Your task to perform on an android device: show emergency info Image 0: 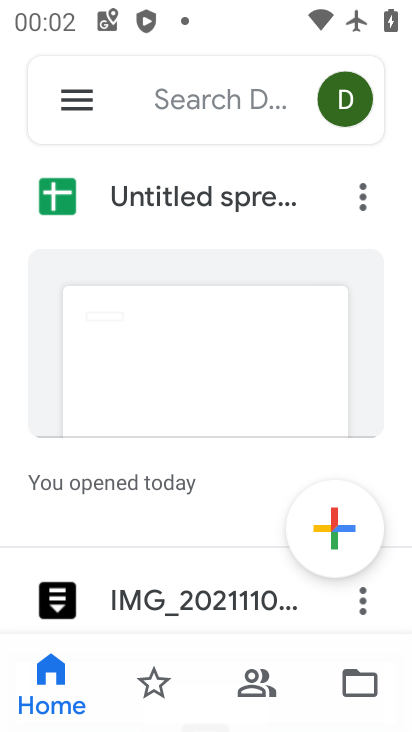
Step 0: press home button
Your task to perform on an android device: show emergency info Image 1: 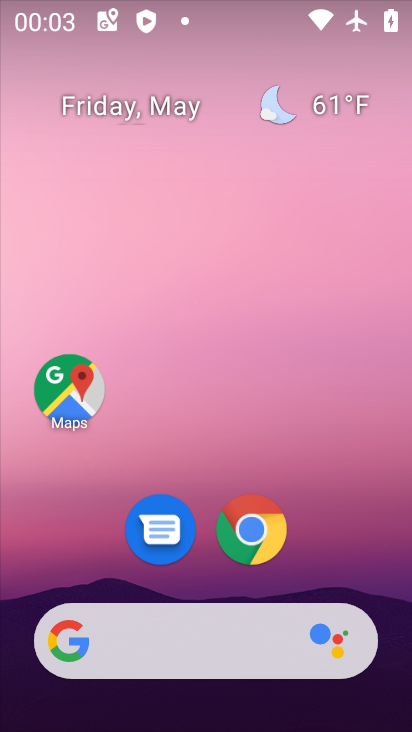
Step 1: drag from (334, 549) to (328, 177)
Your task to perform on an android device: show emergency info Image 2: 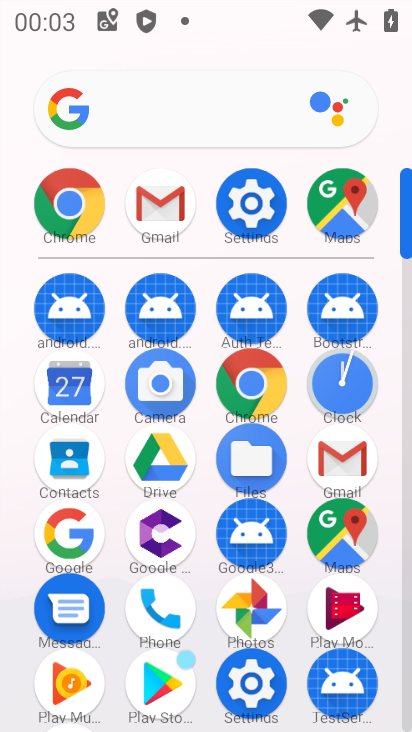
Step 2: click (237, 211)
Your task to perform on an android device: show emergency info Image 3: 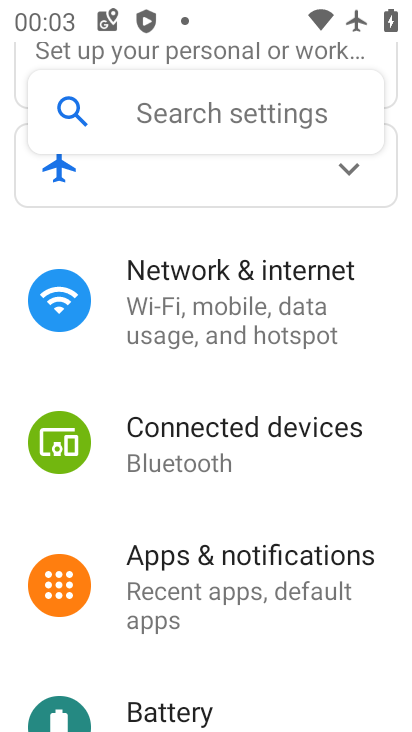
Step 3: drag from (182, 690) to (228, 286)
Your task to perform on an android device: show emergency info Image 4: 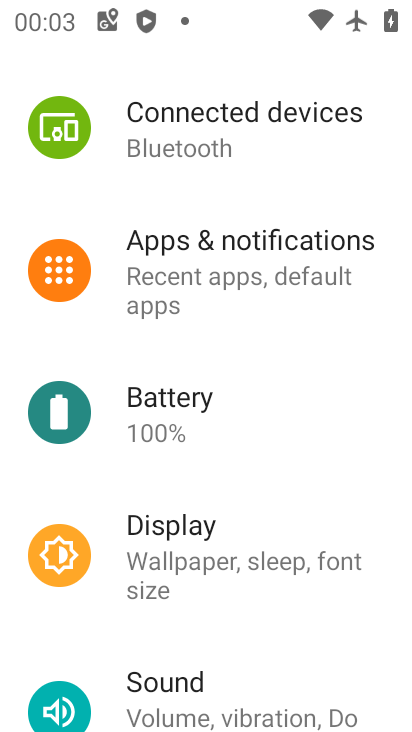
Step 4: drag from (185, 585) to (219, 48)
Your task to perform on an android device: show emergency info Image 5: 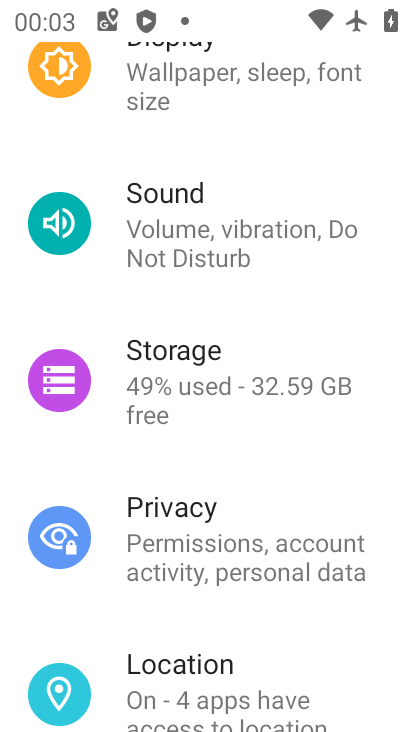
Step 5: drag from (229, 397) to (248, 183)
Your task to perform on an android device: show emergency info Image 6: 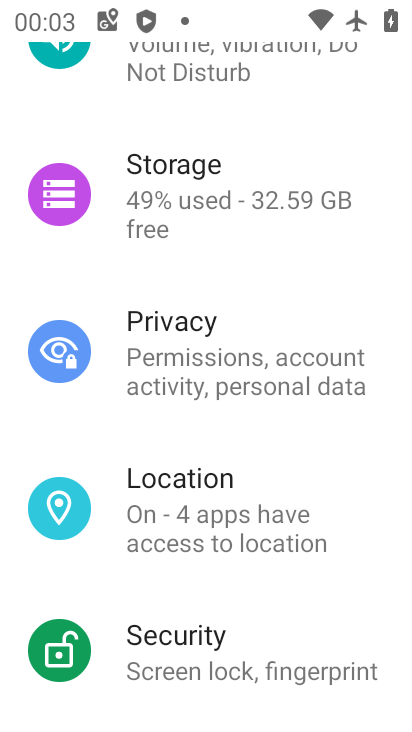
Step 6: drag from (218, 652) to (231, 238)
Your task to perform on an android device: show emergency info Image 7: 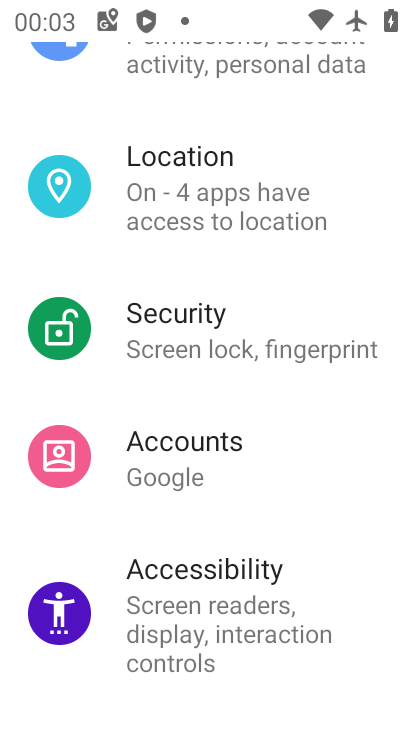
Step 7: drag from (260, 591) to (291, 243)
Your task to perform on an android device: show emergency info Image 8: 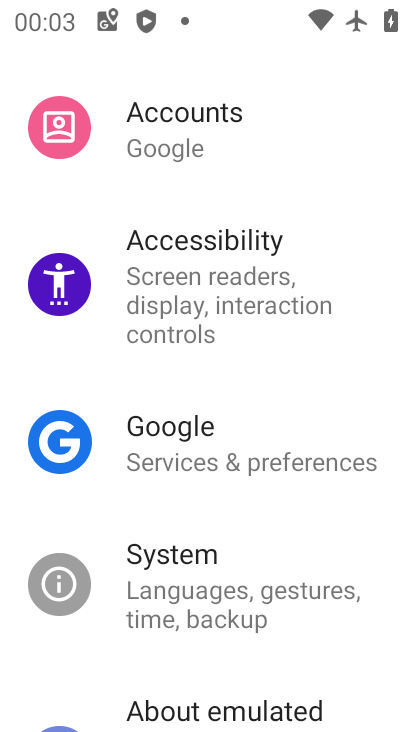
Step 8: drag from (244, 637) to (320, 174)
Your task to perform on an android device: show emergency info Image 9: 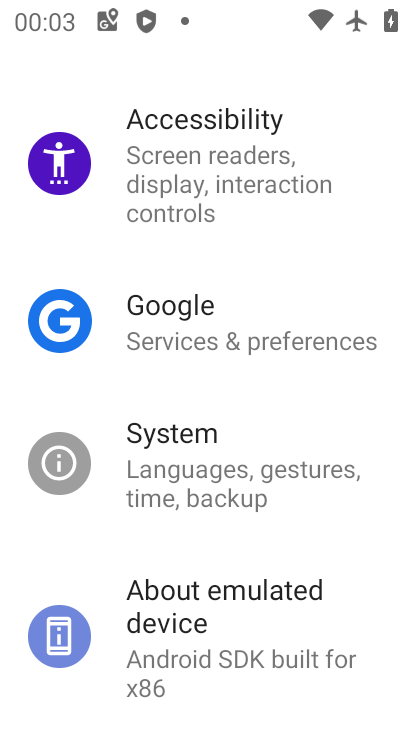
Step 9: drag from (234, 650) to (244, 246)
Your task to perform on an android device: show emergency info Image 10: 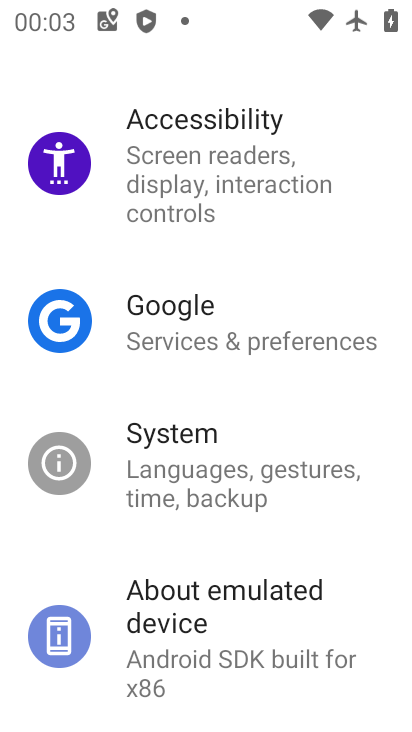
Step 10: click (283, 629)
Your task to perform on an android device: show emergency info Image 11: 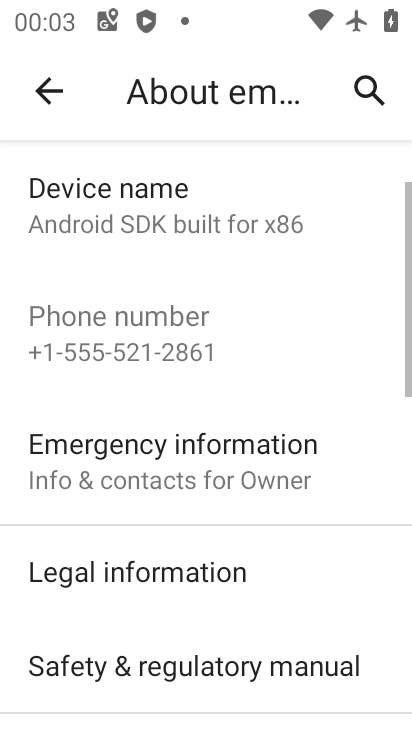
Step 11: click (208, 444)
Your task to perform on an android device: show emergency info Image 12: 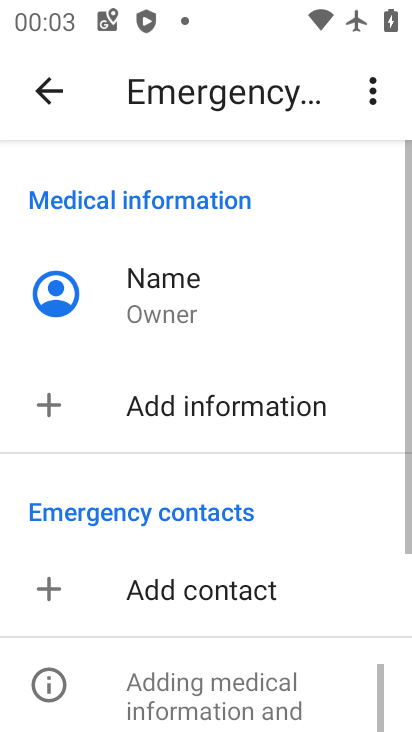
Step 12: task complete